Your task to perform on an android device: open app "Airtel Thanks" Image 0: 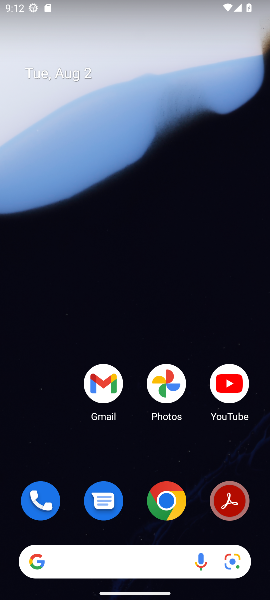
Step 0: drag from (128, 515) to (149, 147)
Your task to perform on an android device: open app "Airtel Thanks" Image 1: 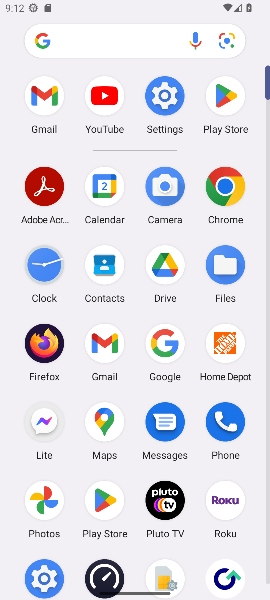
Step 1: click (229, 101)
Your task to perform on an android device: open app "Airtel Thanks" Image 2: 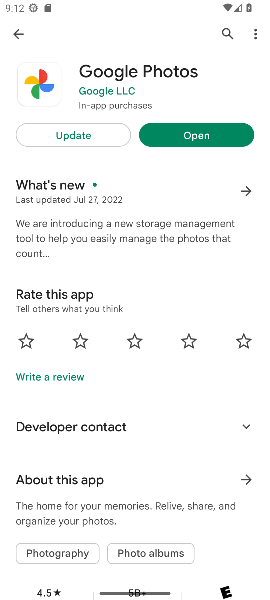
Step 2: click (228, 28)
Your task to perform on an android device: open app "Airtel Thanks" Image 3: 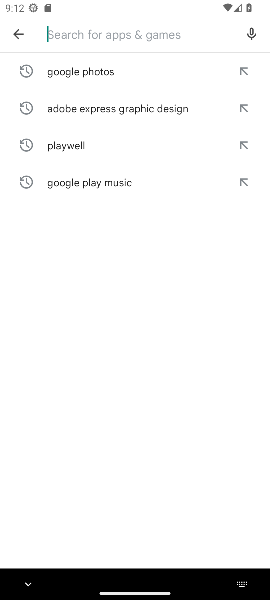
Step 3: type "Airtel Thanks"
Your task to perform on an android device: open app "Airtel Thanks" Image 4: 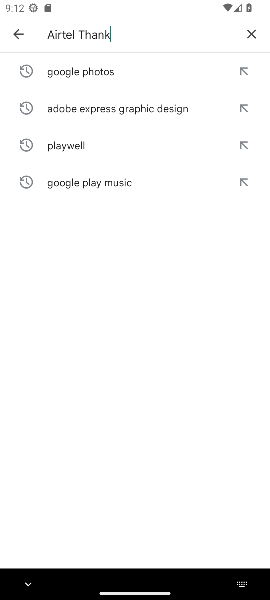
Step 4: type ""
Your task to perform on an android device: open app "Airtel Thanks" Image 5: 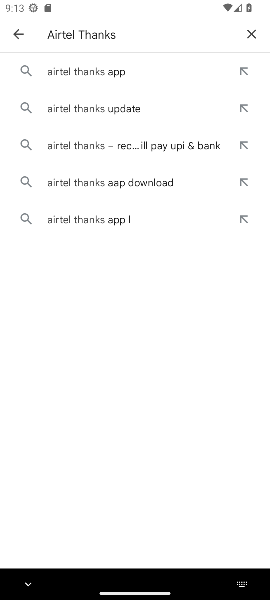
Step 5: click (93, 69)
Your task to perform on an android device: open app "Airtel Thanks" Image 6: 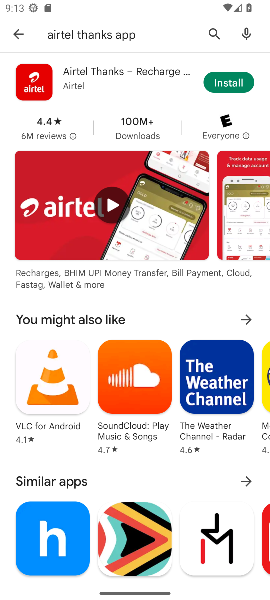
Step 6: click (96, 76)
Your task to perform on an android device: open app "Airtel Thanks" Image 7: 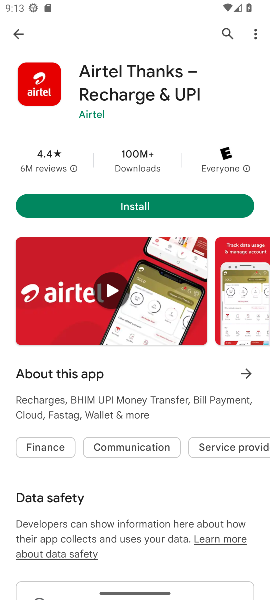
Step 7: task complete